Your task to perform on an android device: turn vacation reply on in the gmail app Image 0: 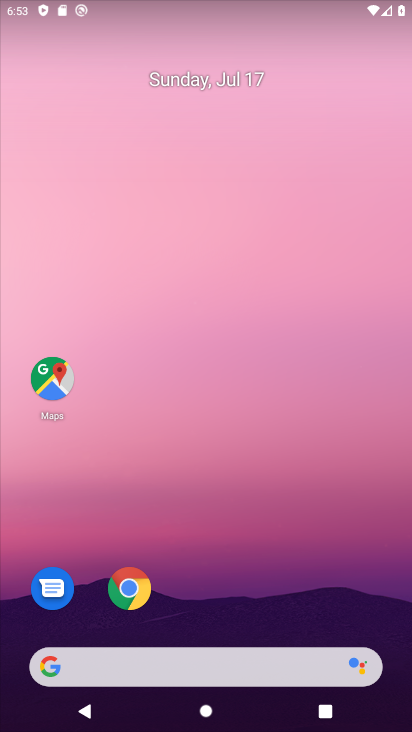
Step 0: drag from (325, 620) to (248, 22)
Your task to perform on an android device: turn vacation reply on in the gmail app Image 1: 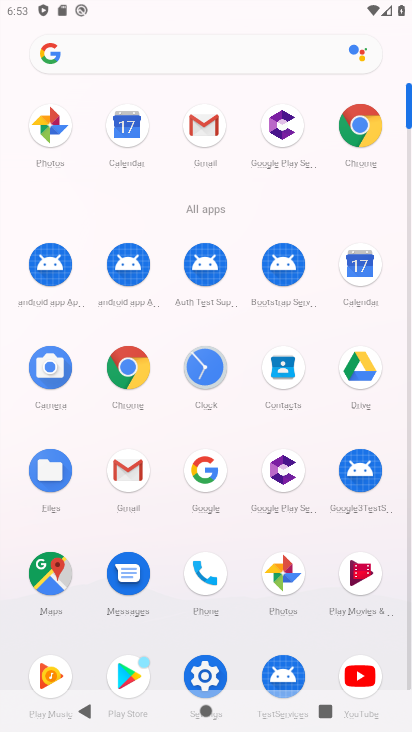
Step 1: click (145, 476)
Your task to perform on an android device: turn vacation reply on in the gmail app Image 2: 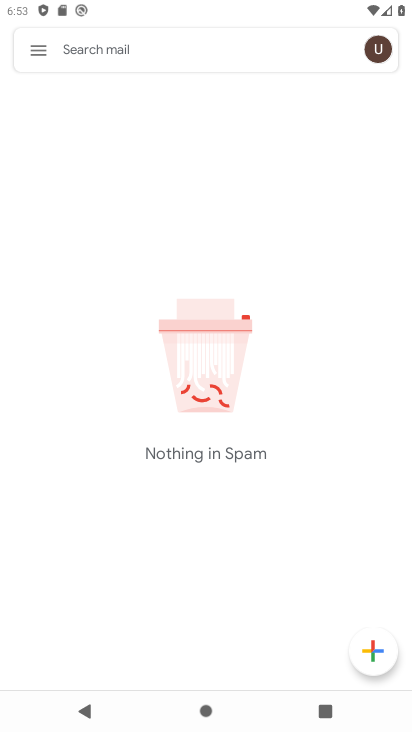
Step 2: click (39, 38)
Your task to perform on an android device: turn vacation reply on in the gmail app Image 3: 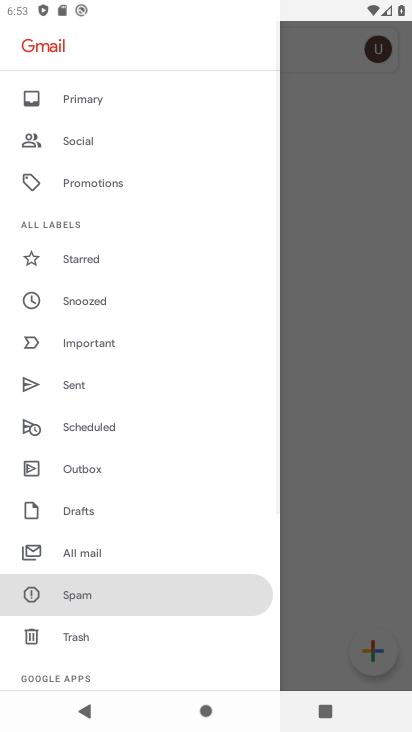
Step 3: drag from (43, 604) to (119, 12)
Your task to perform on an android device: turn vacation reply on in the gmail app Image 4: 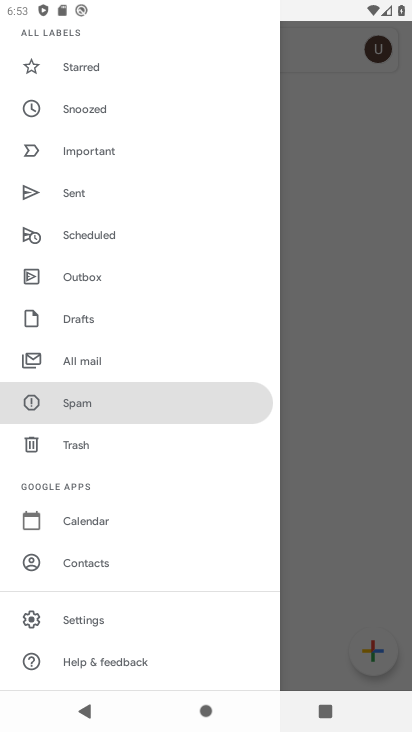
Step 4: click (82, 628)
Your task to perform on an android device: turn vacation reply on in the gmail app Image 5: 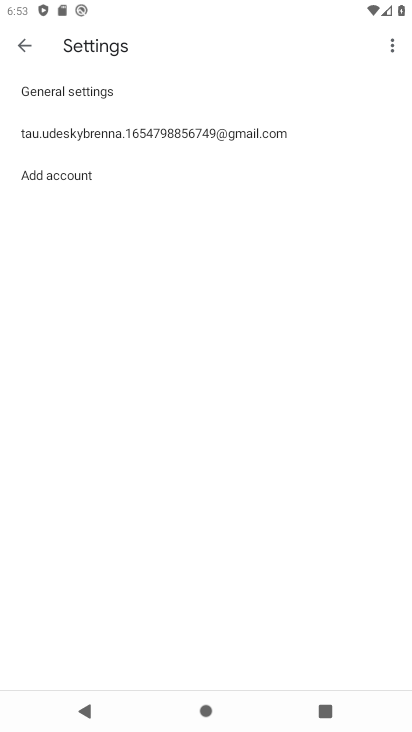
Step 5: click (102, 127)
Your task to perform on an android device: turn vacation reply on in the gmail app Image 6: 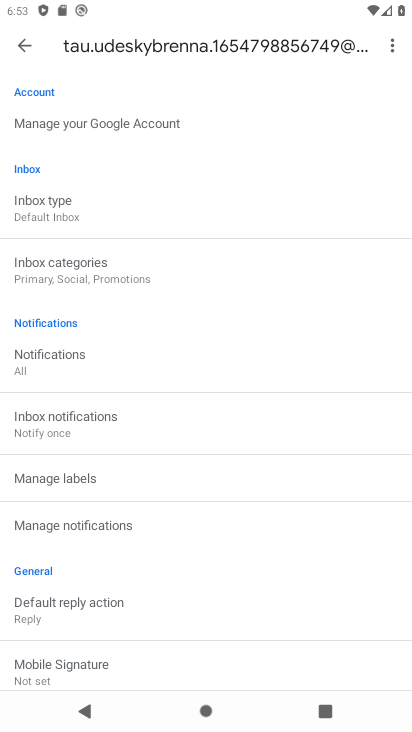
Step 6: drag from (99, 645) to (202, 5)
Your task to perform on an android device: turn vacation reply on in the gmail app Image 7: 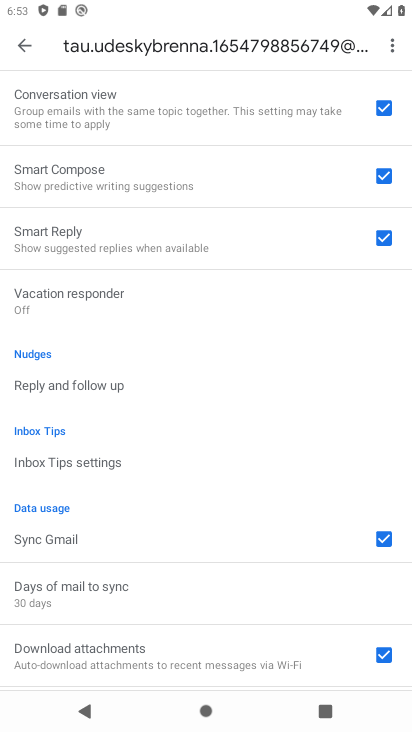
Step 7: drag from (84, 564) to (173, 24)
Your task to perform on an android device: turn vacation reply on in the gmail app Image 8: 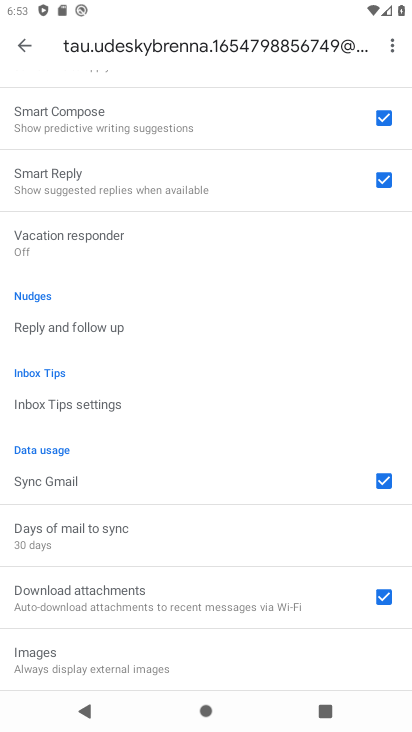
Step 8: click (121, 234)
Your task to perform on an android device: turn vacation reply on in the gmail app Image 9: 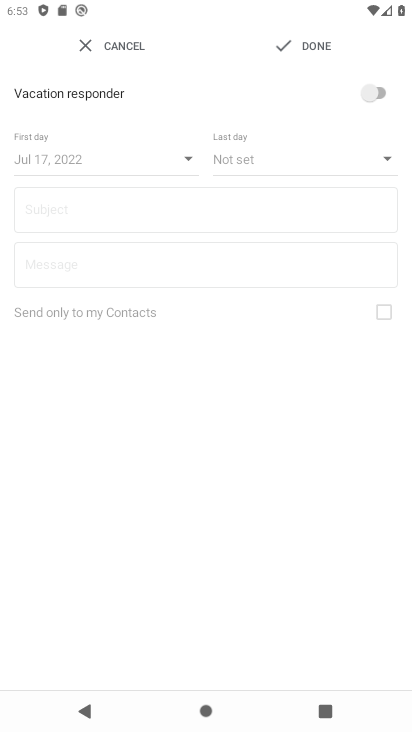
Step 9: click (369, 89)
Your task to perform on an android device: turn vacation reply on in the gmail app Image 10: 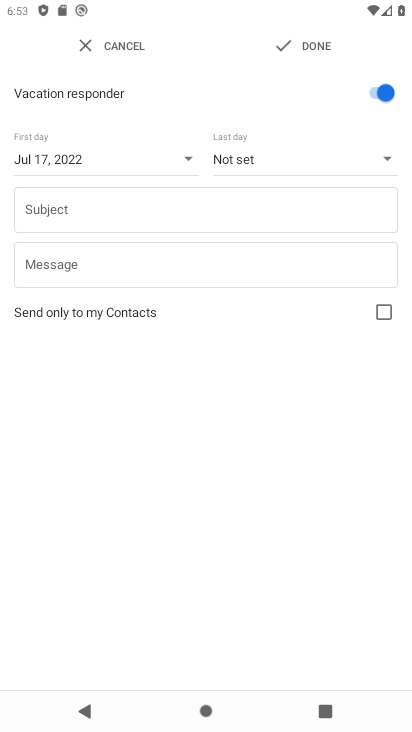
Step 10: task complete